Your task to perform on an android device: find which apps use the phone's location Image 0: 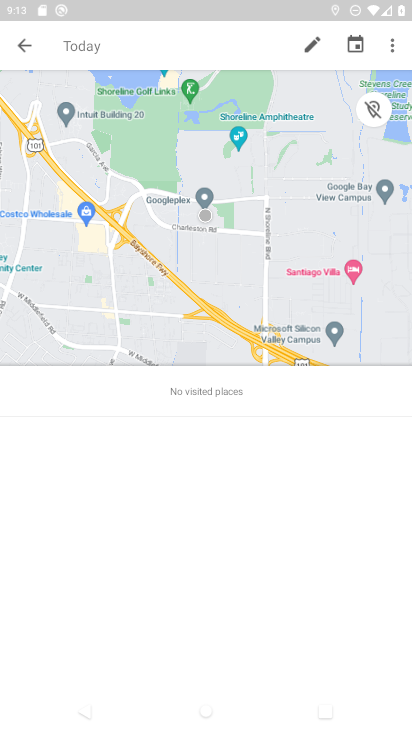
Step 0: press home button
Your task to perform on an android device: find which apps use the phone's location Image 1: 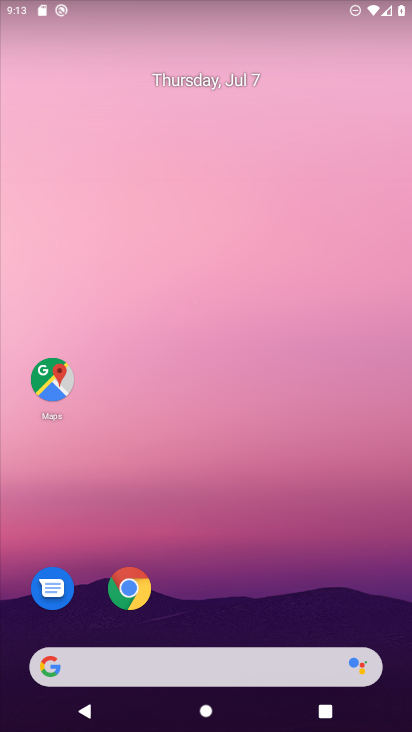
Step 1: drag from (141, 13) to (210, 529)
Your task to perform on an android device: find which apps use the phone's location Image 2: 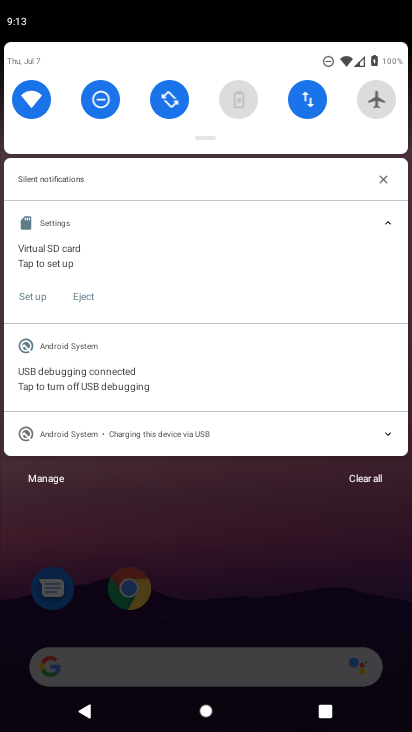
Step 2: drag from (213, 51) to (278, 661)
Your task to perform on an android device: find which apps use the phone's location Image 3: 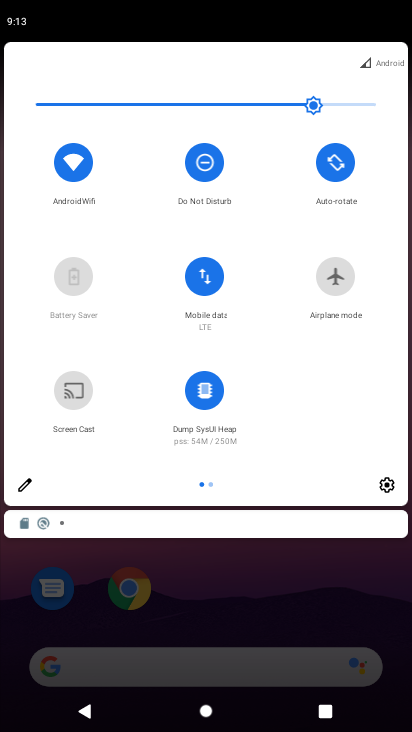
Step 3: click (390, 482)
Your task to perform on an android device: find which apps use the phone's location Image 4: 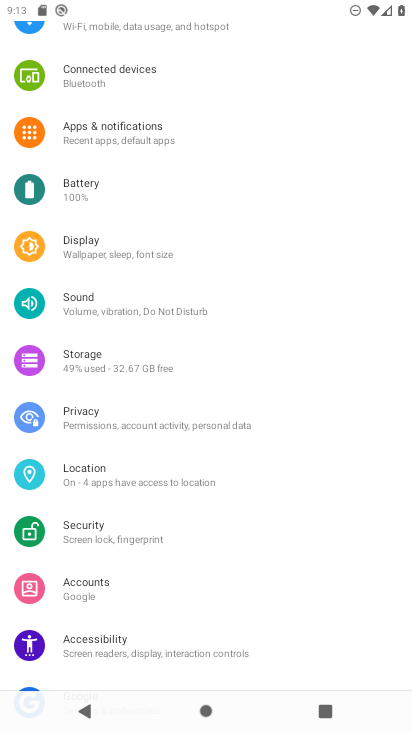
Step 4: click (100, 465)
Your task to perform on an android device: find which apps use the phone's location Image 5: 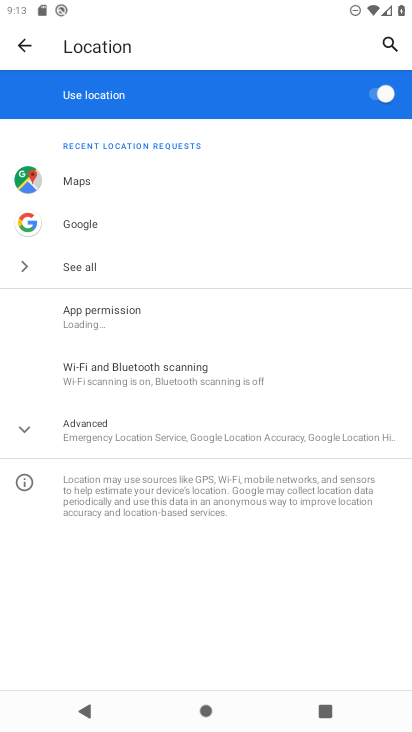
Step 5: click (64, 261)
Your task to perform on an android device: find which apps use the phone's location Image 6: 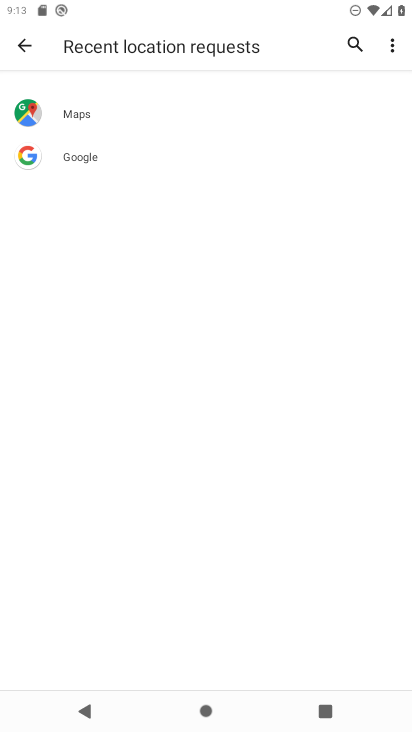
Step 6: task complete